Your task to perform on an android device: open app "Instagram" (install if not already installed) Image 0: 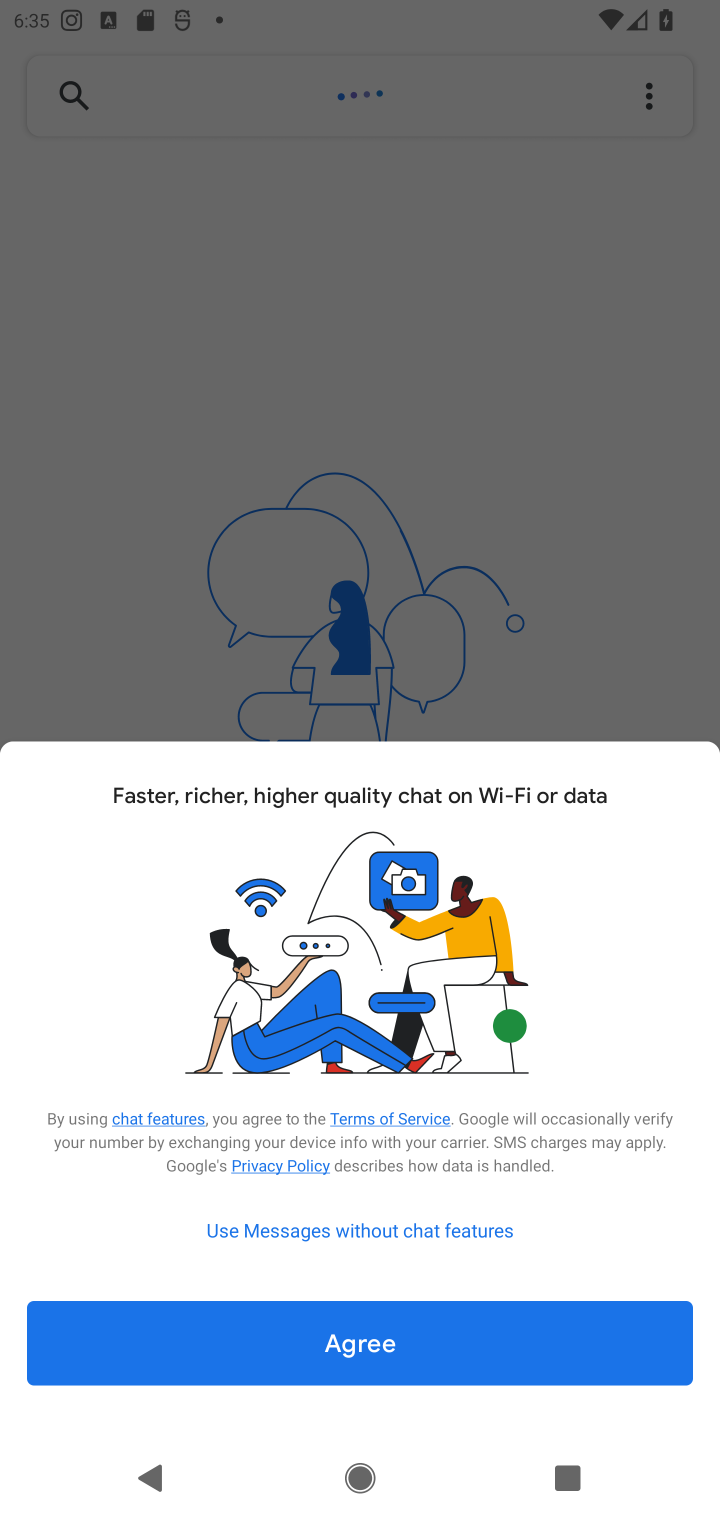
Step 0: press home button
Your task to perform on an android device: open app "Instagram" (install if not already installed) Image 1: 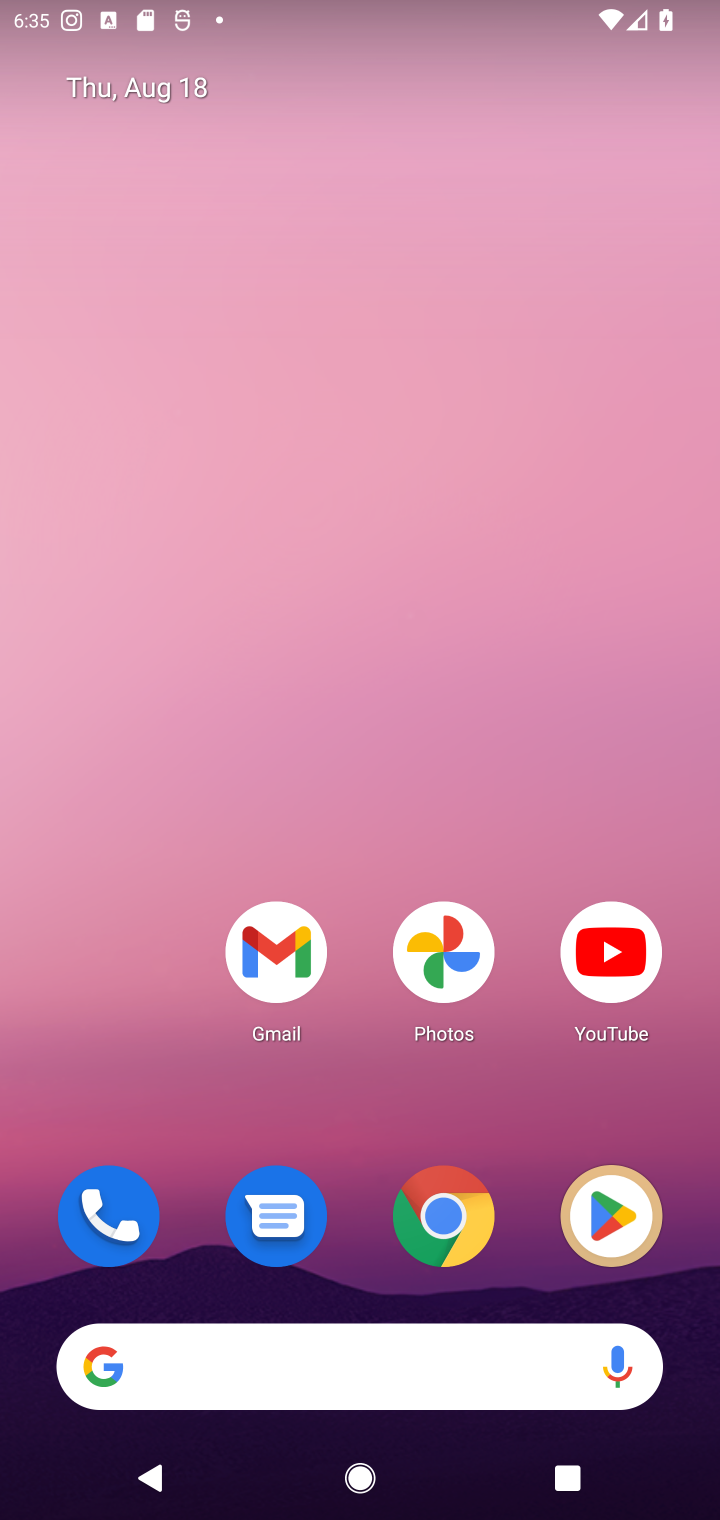
Step 1: click (602, 1204)
Your task to perform on an android device: open app "Instagram" (install if not already installed) Image 2: 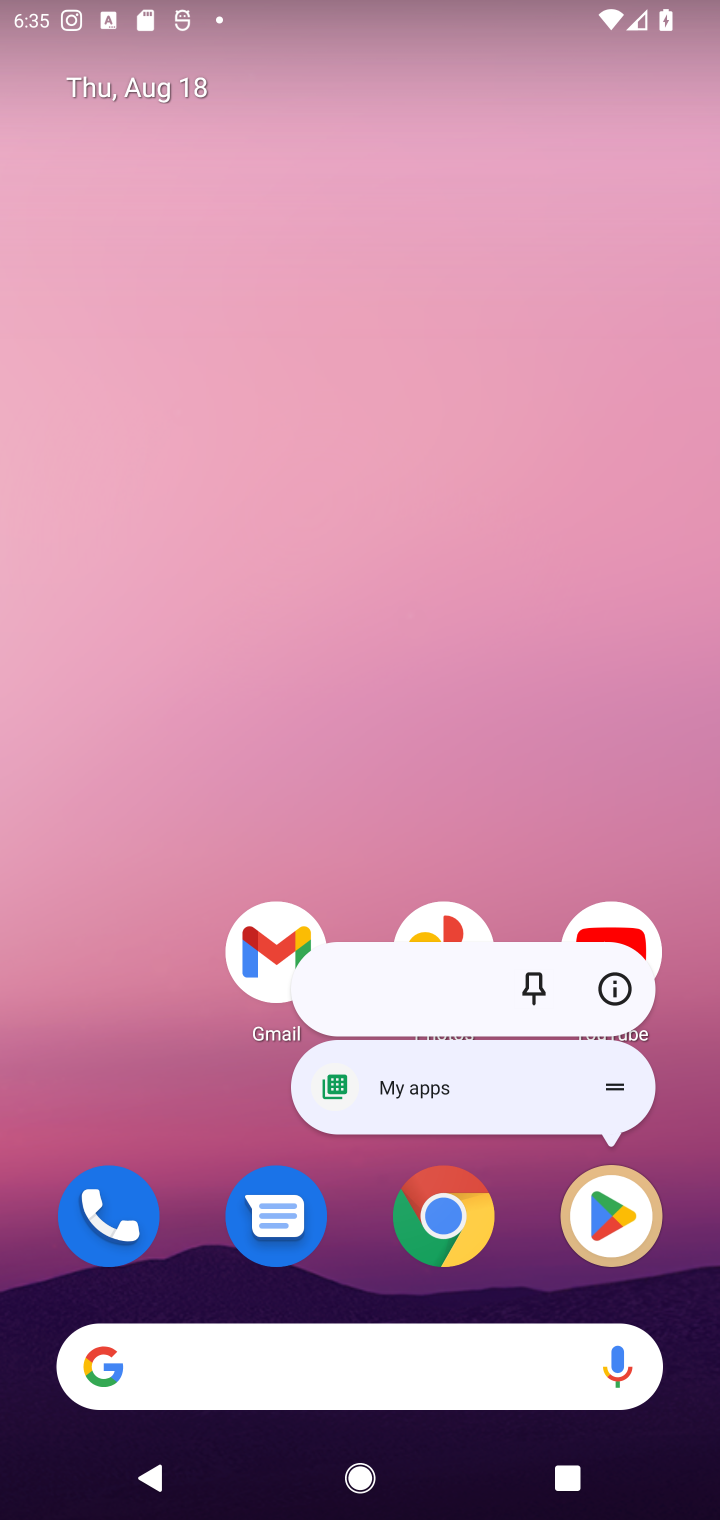
Step 2: click (610, 1226)
Your task to perform on an android device: open app "Instagram" (install if not already installed) Image 3: 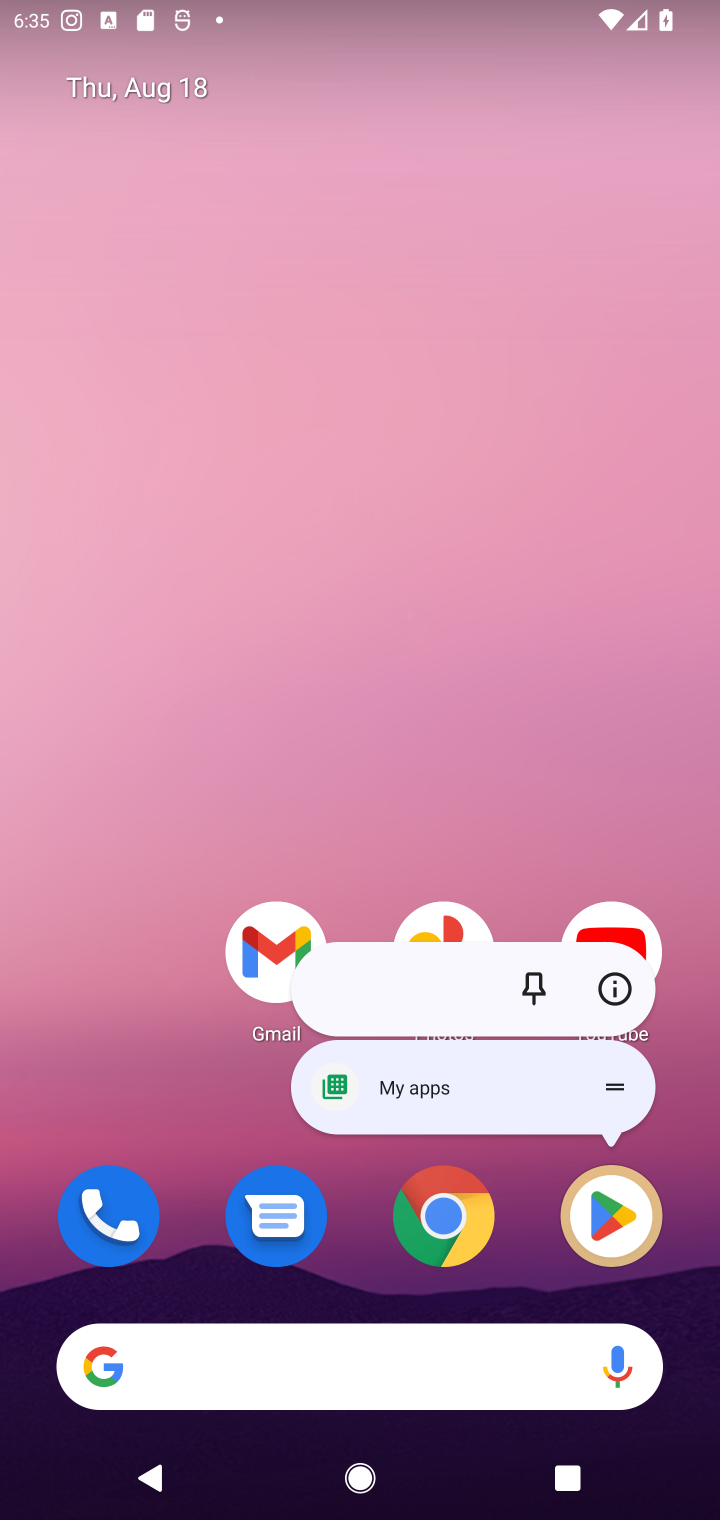
Step 3: click (608, 1226)
Your task to perform on an android device: open app "Instagram" (install if not already installed) Image 4: 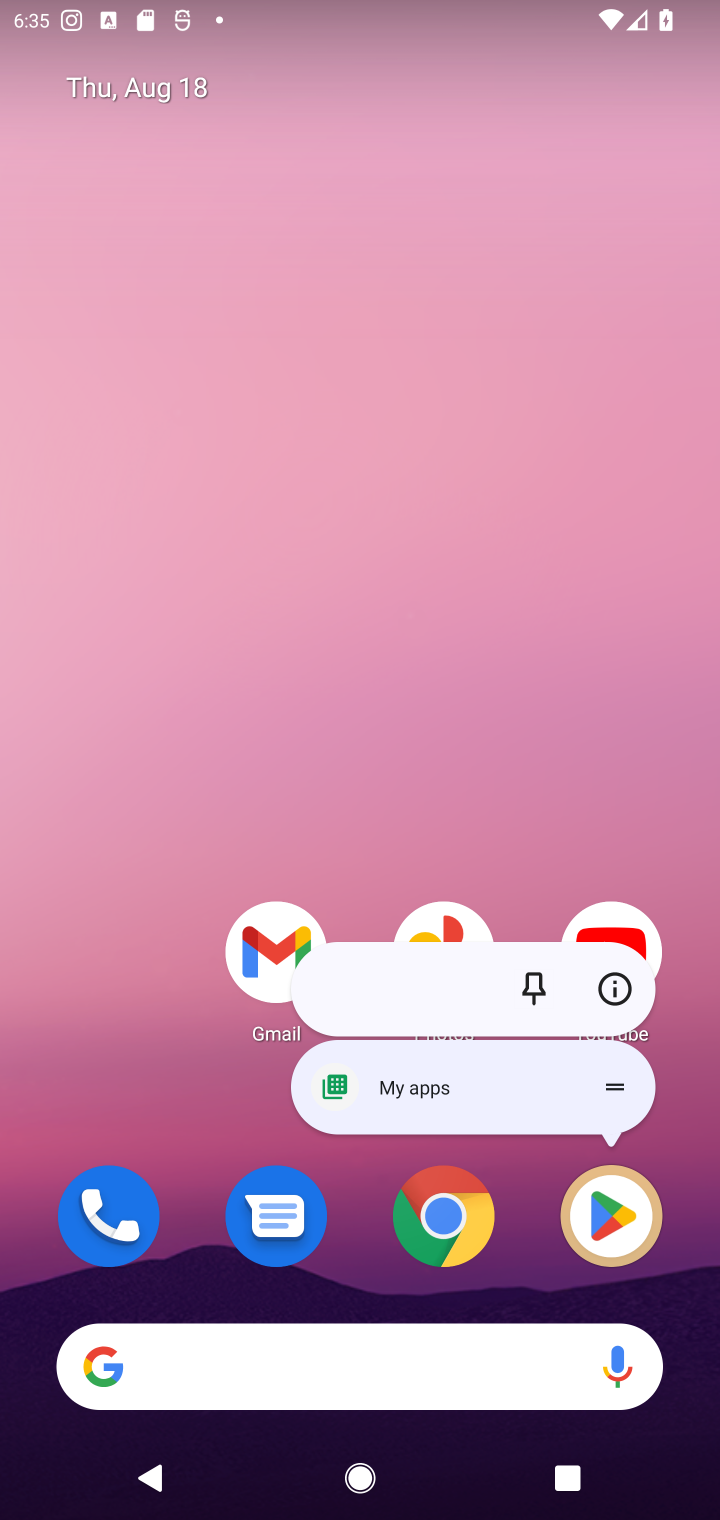
Step 4: click (593, 1238)
Your task to perform on an android device: open app "Instagram" (install if not already installed) Image 5: 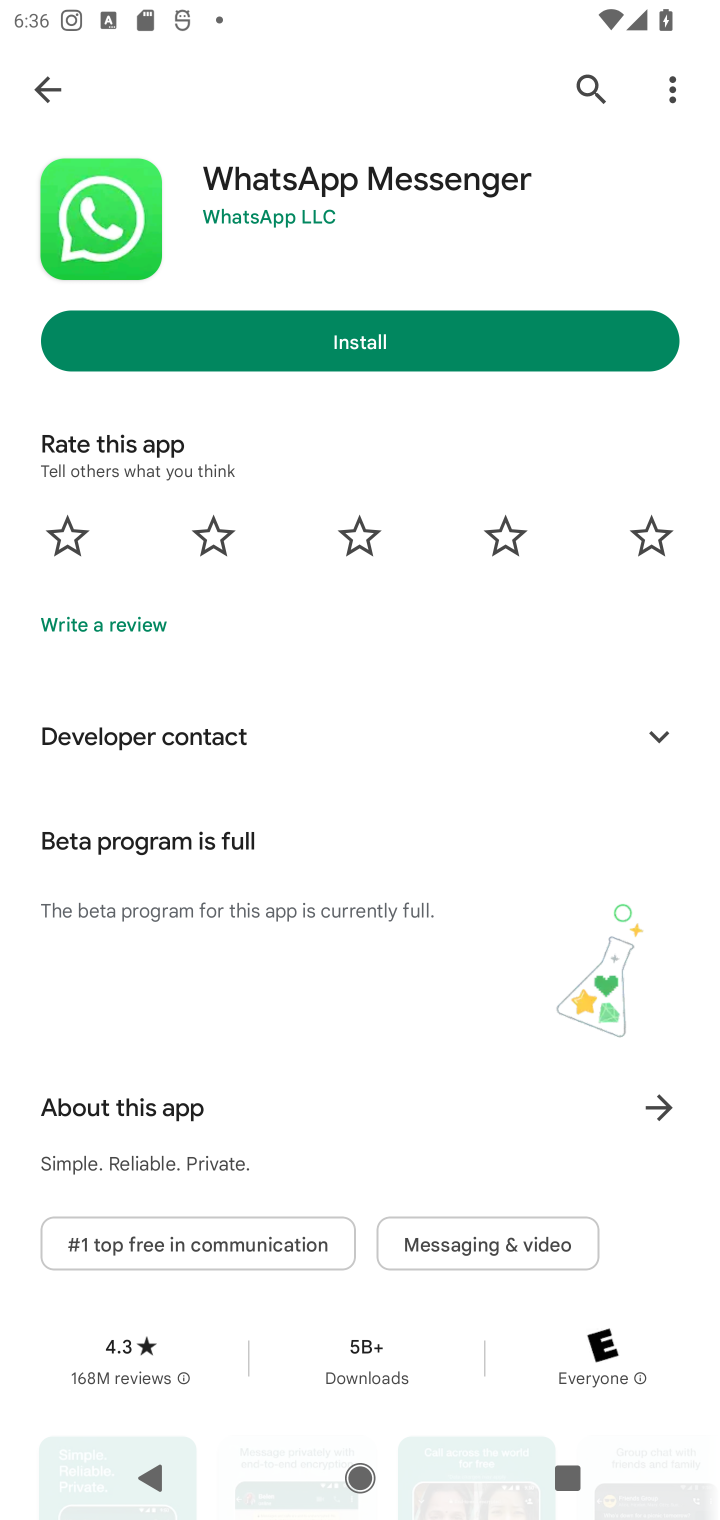
Step 5: click (583, 82)
Your task to perform on an android device: open app "Instagram" (install if not already installed) Image 6: 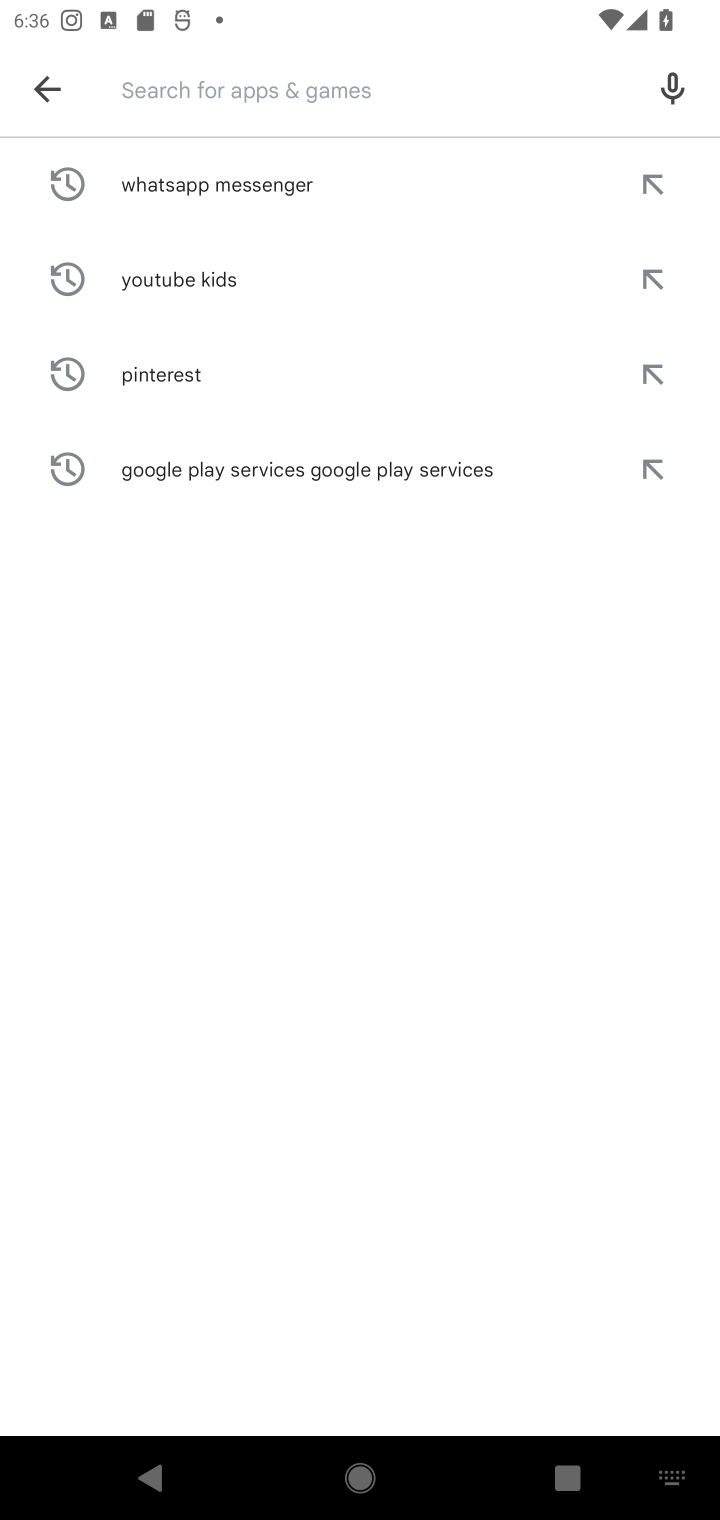
Step 6: type "Instagram"
Your task to perform on an android device: open app "Instagram" (install if not already installed) Image 7: 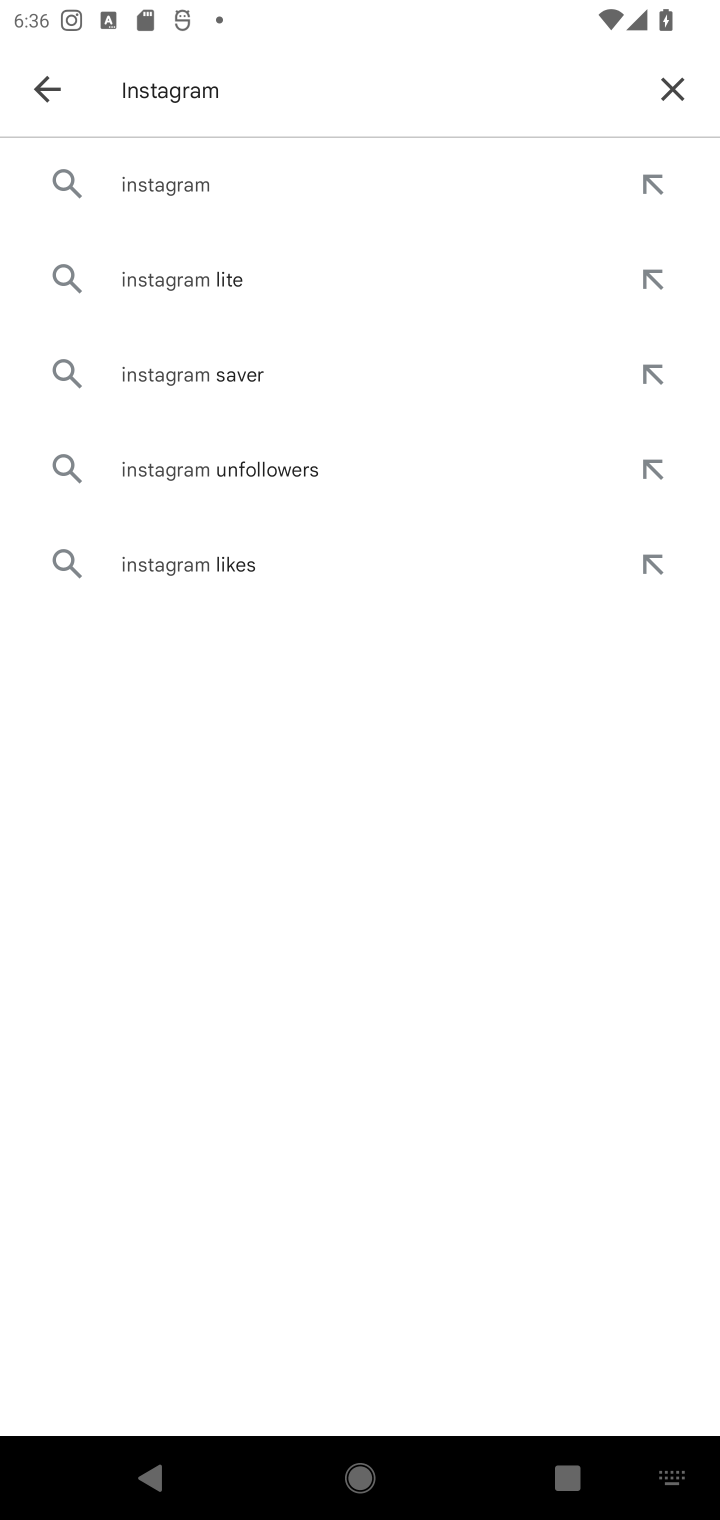
Step 7: click (242, 194)
Your task to perform on an android device: open app "Instagram" (install if not already installed) Image 8: 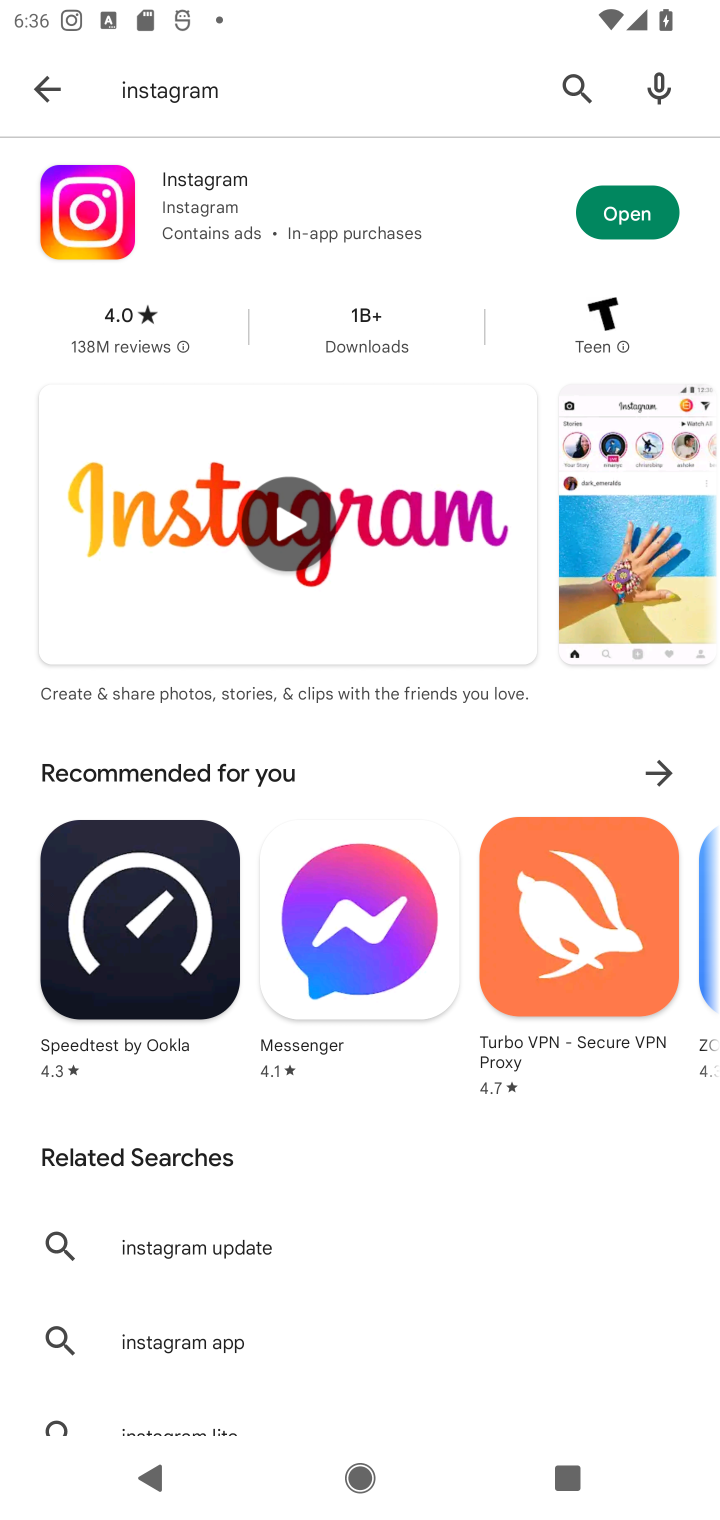
Step 8: click (622, 206)
Your task to perform on an android device: open app "Instagram" (install if not already installed) Image 9: 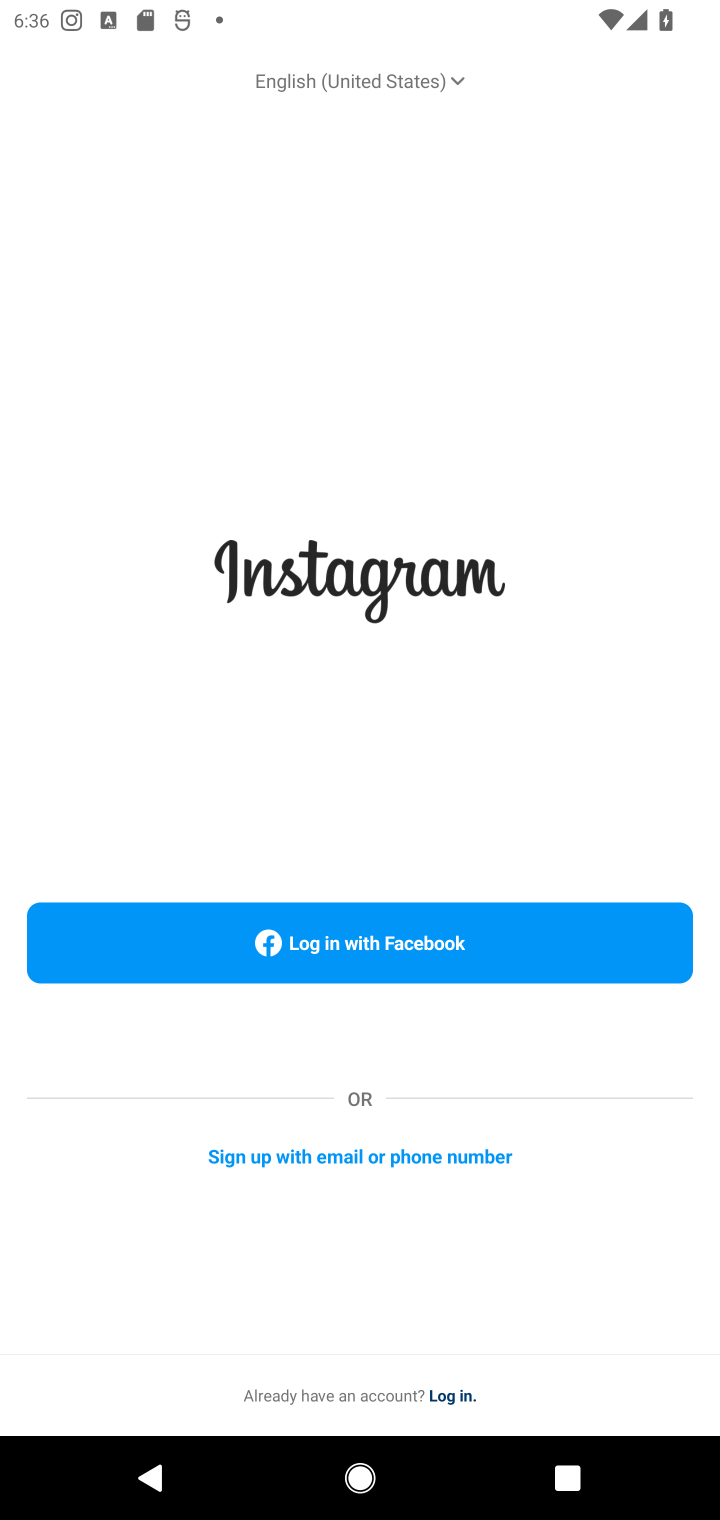
Step 9: task complete